Your task to perform on an android device: Is it going to rain tomorrow? Image 0: 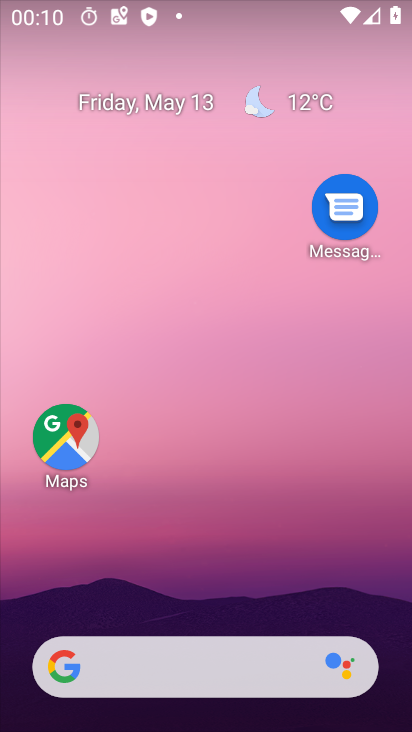
Step 0: drag from (263, 604) to (266, 111)
Your task to perform on an android device: Is it going to rain tomorrow? Image 1: 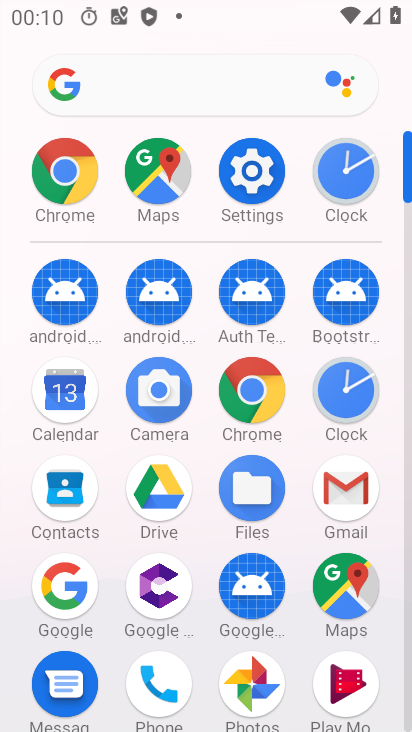
Step 1: click (258, 406)
Your task to perform on an android device: Is it going to rain tomorrow? Image 2: 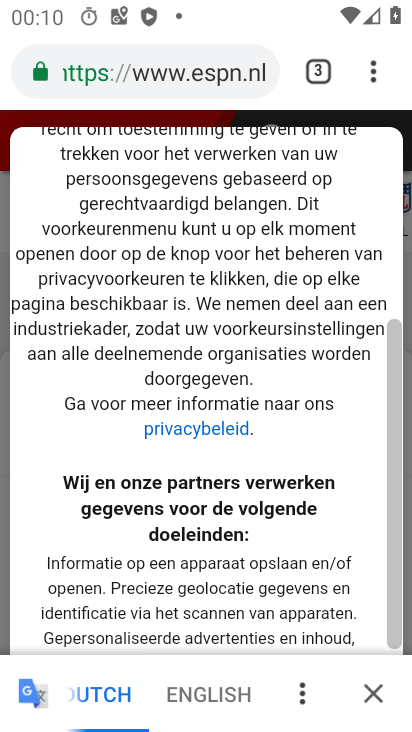
Step 2: click (200, 68)
Your task to perform on an android device: Is it going to rain tomorrow? Image 3: 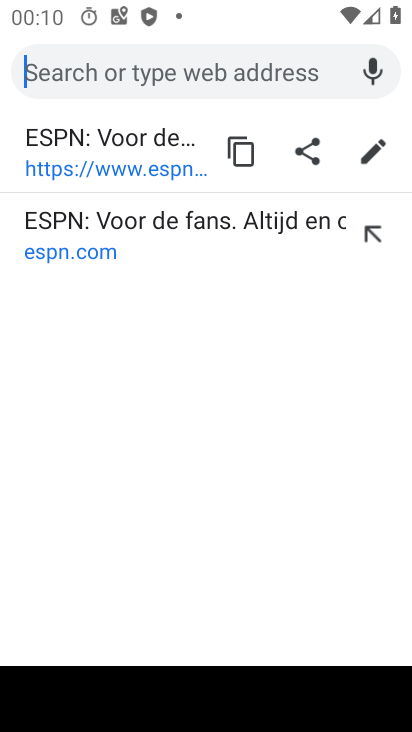
Step 3: type "Is it going to rain tomorrow?"
Your task to perform on an android device: Is it going to rain tomorrow? Image 4: 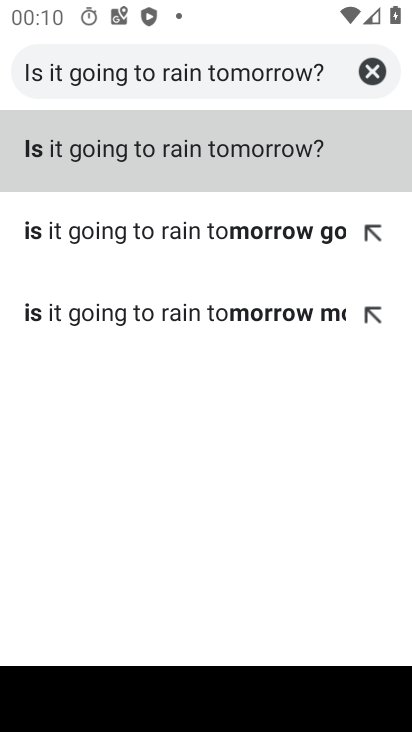
Step 4: click (126, 154)
Your task to perform on an android device: Is it going to rain tomorrow? Image 5: 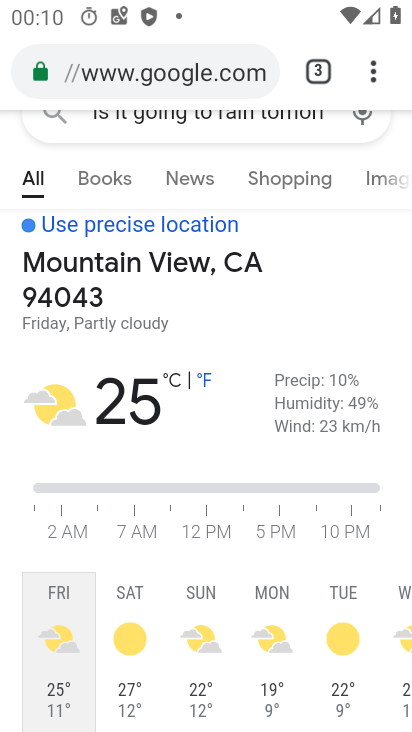
Step 5: task complete